Your task to perform on an android device: allow cookies in the chrome app Image 0: 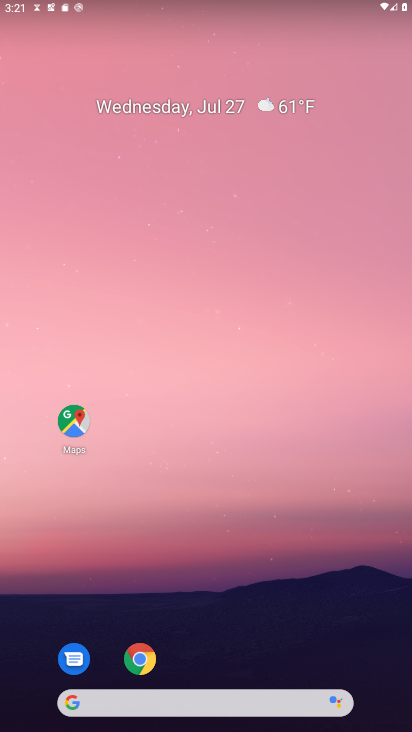
Step 0: drag from (209, 713) to (158, 213)
Your task to perform on an android device: allow cookies in the chrome app Image 1: 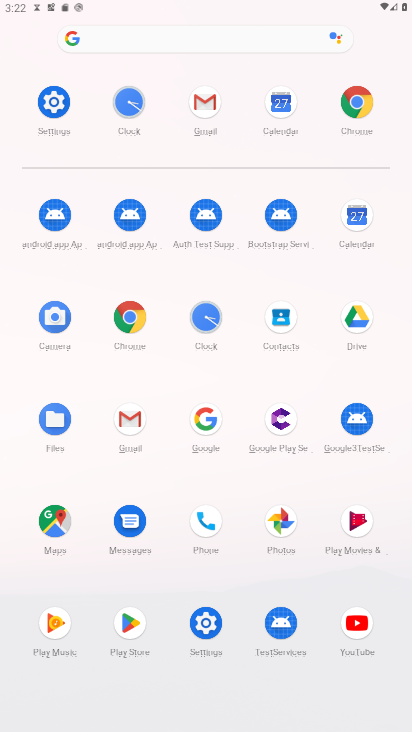
Step 1: click (365, 108)
Your task to perform on an android device: allow cookies in the chrome app Image 2: 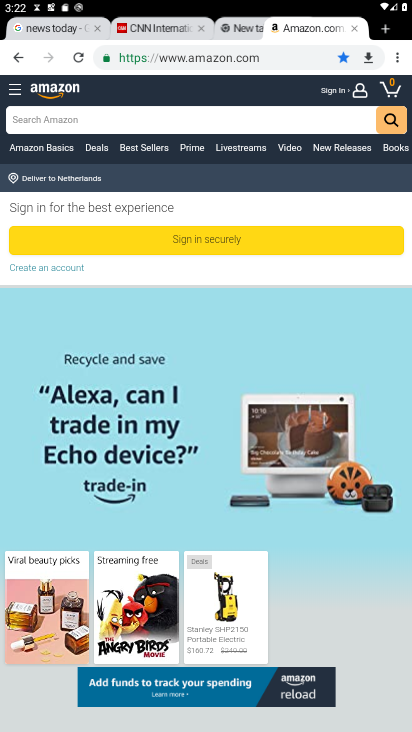
Step 2: drag from (398, 61) to (296, 383)
Your task to perform on an android device: allow cookies in the chrome app Image 3: 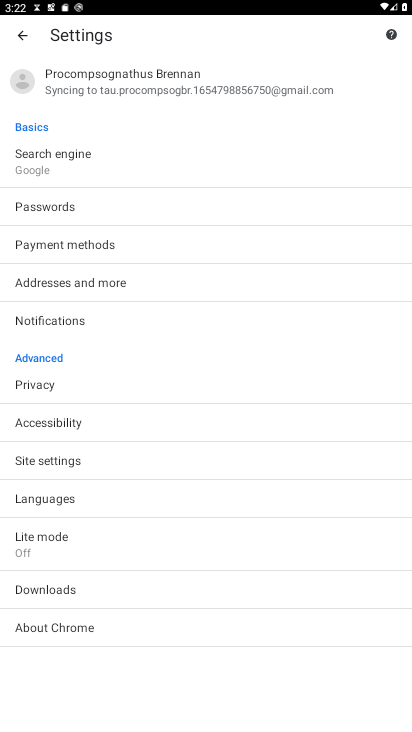
Step 3: click (62, 460)
Your task to perform on an android device: allow cookies in the chrome app Image 4: 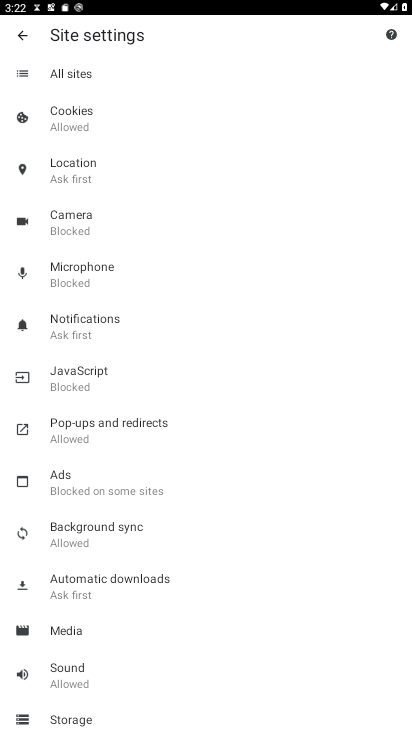
Step 4: click (88, 121)
Your task to perform on an android device: allow cookies in the chrome app Image 5: 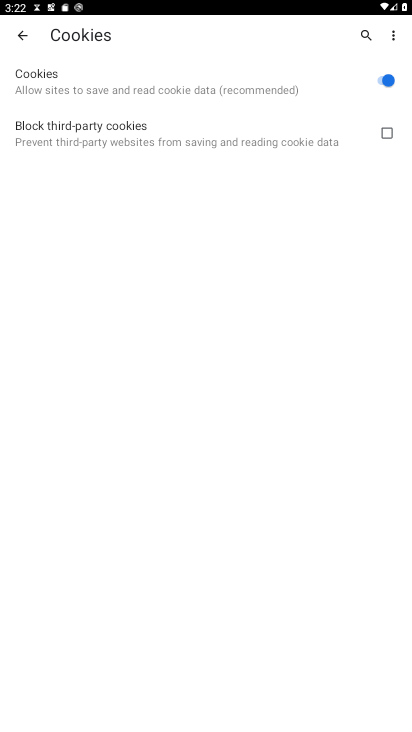
Step 5: task complete